Your task to perform on an android device: Open CNN.com Image 0: 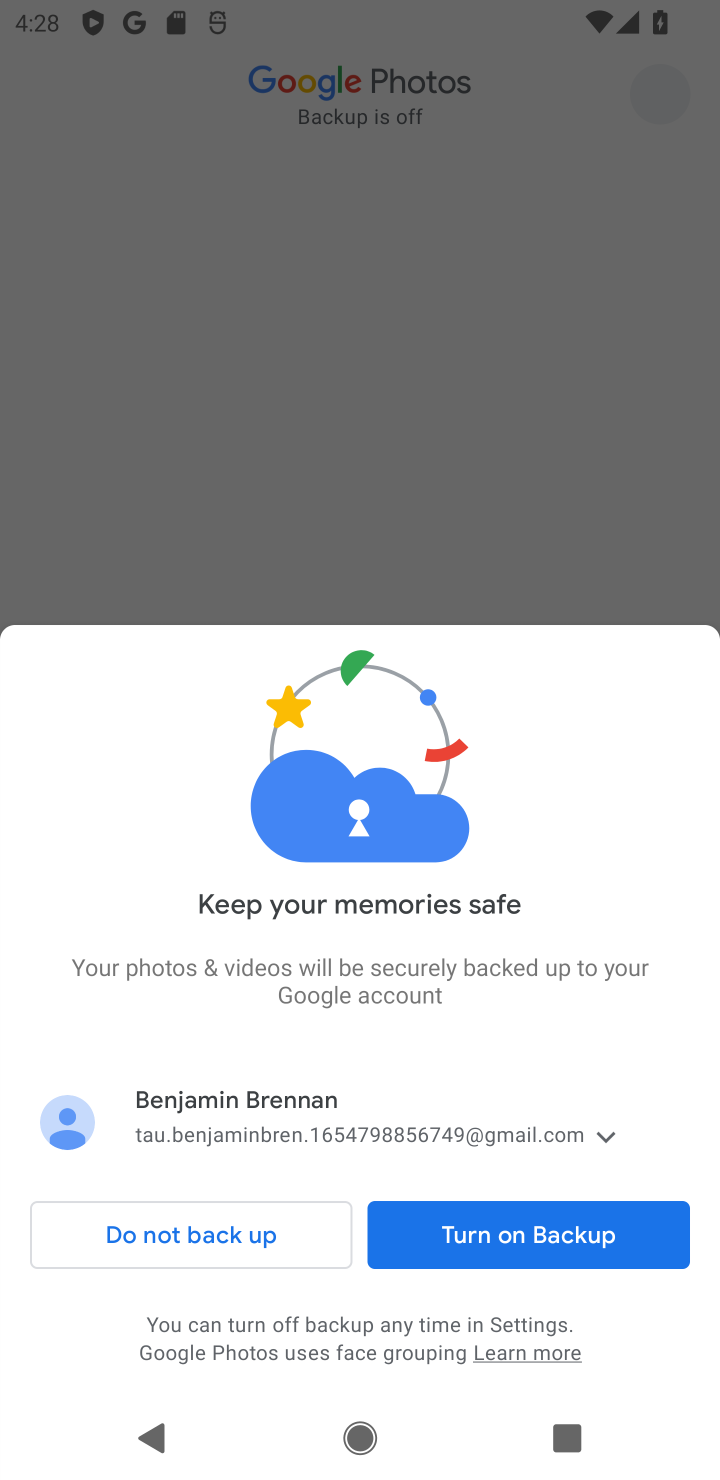
Step 0: press home button
Your task to perform on an android device: Open CNN.com Image 1: 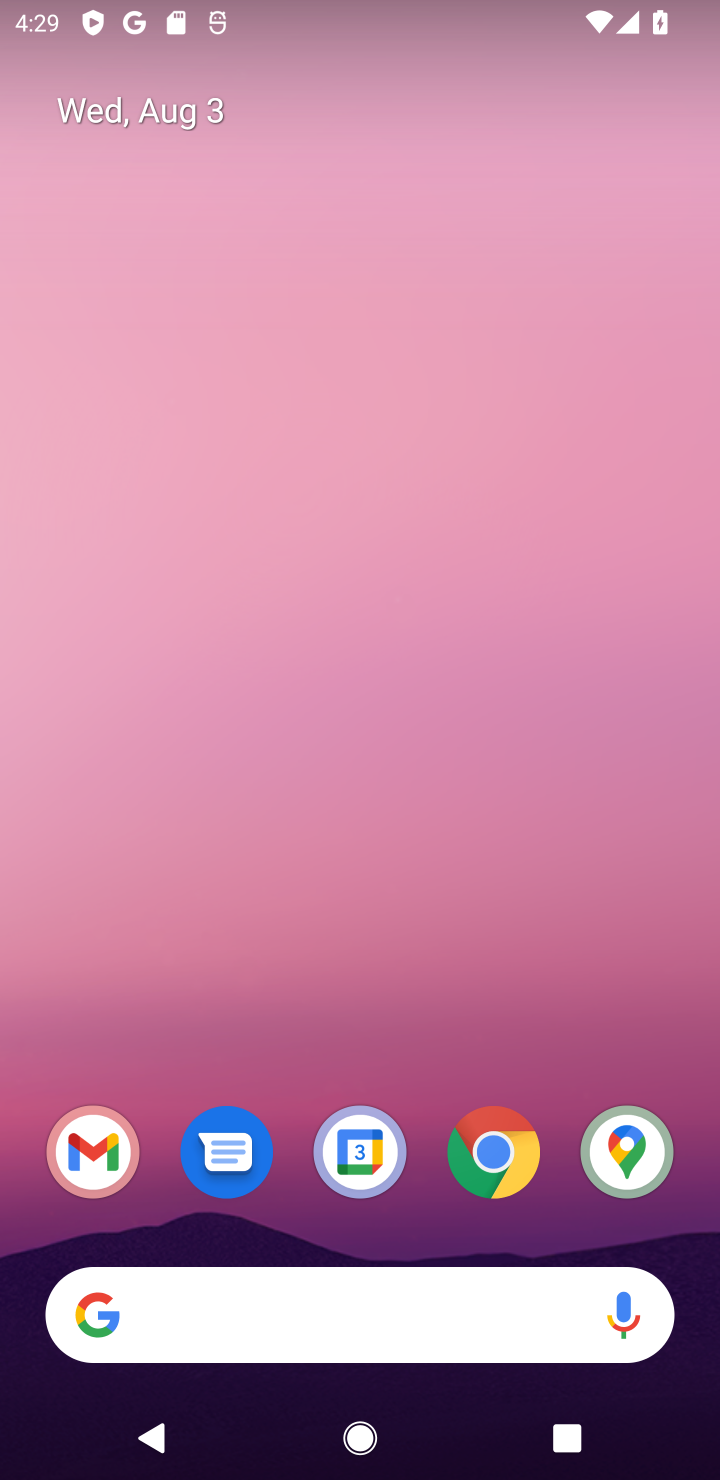
Step 1: click (472, 1148)
Your task to perform on an android device: Open CNN.com Image 2: 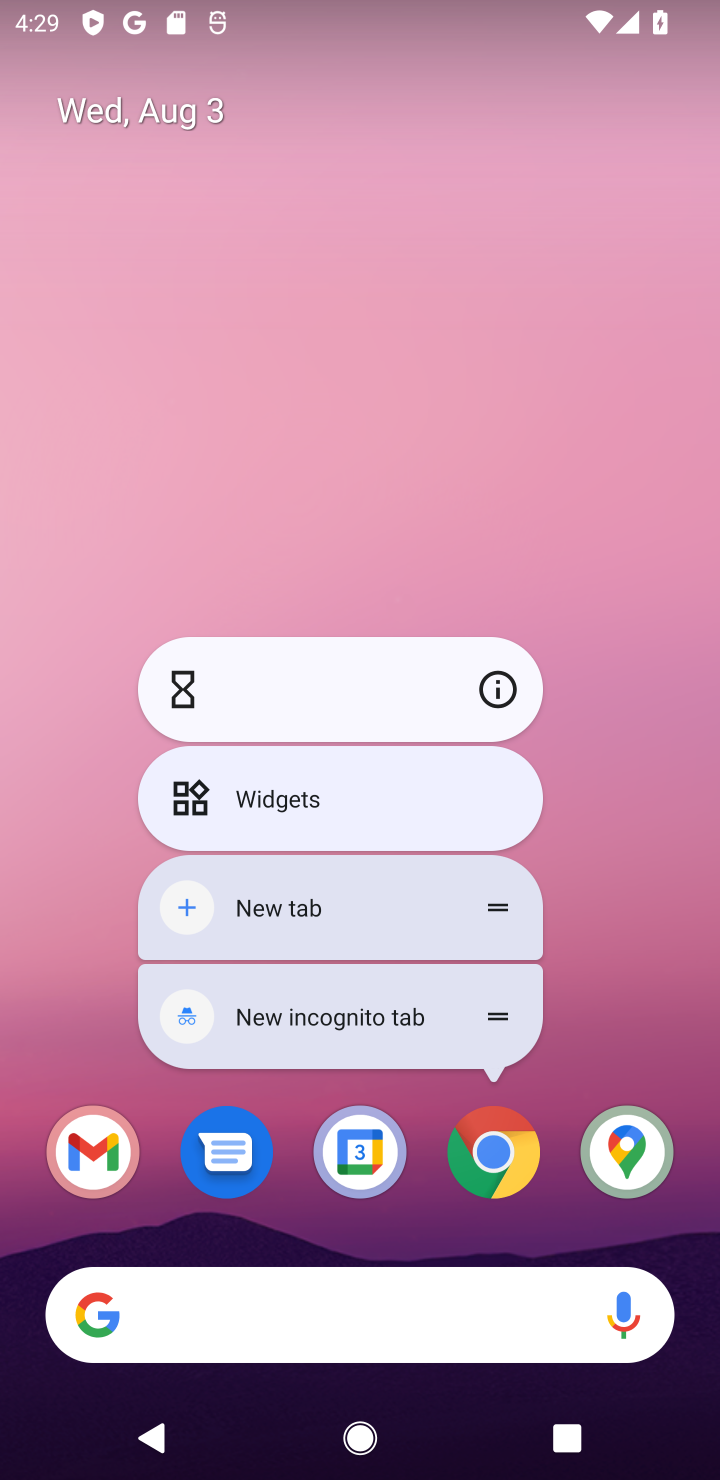
Step 2: click (472, 1148)
Your task to perform on an android device: Open CNN.com Image 3: 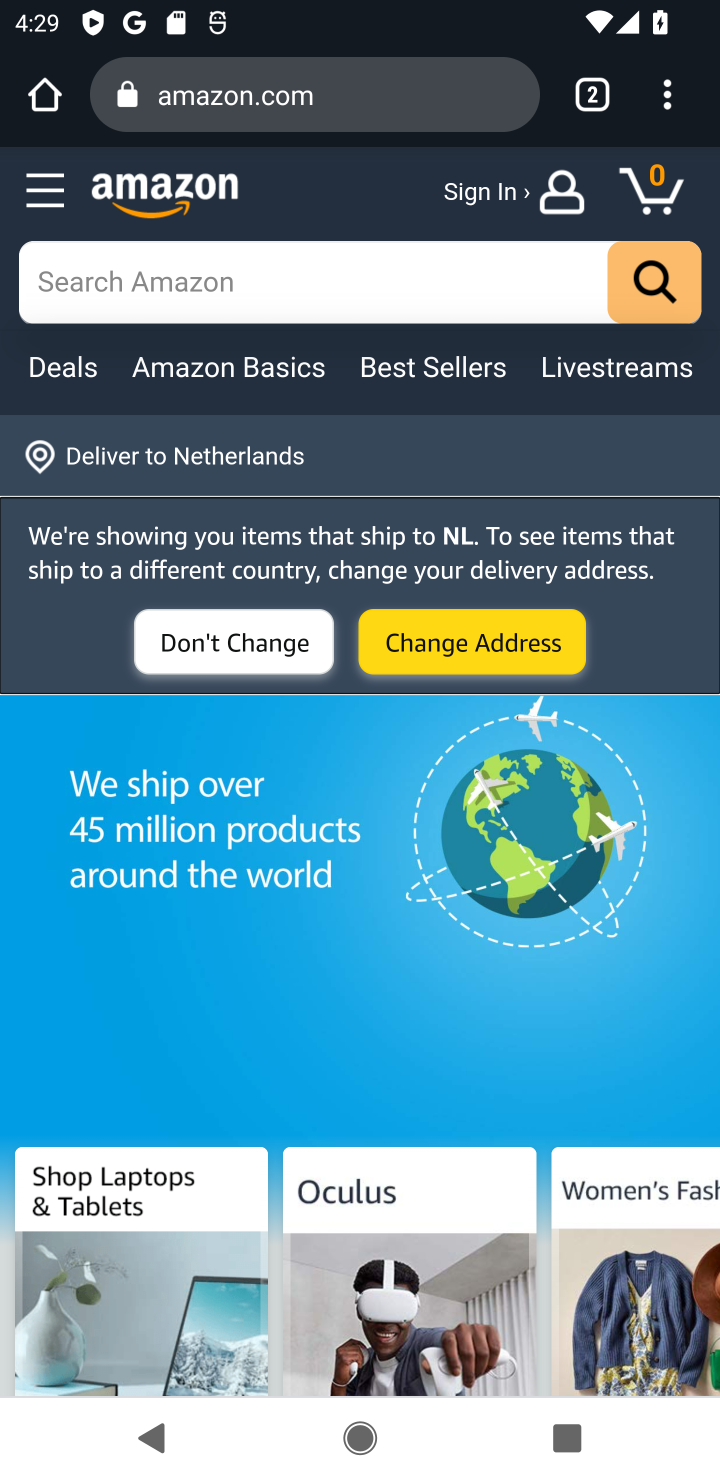
Step 3: click (340, 77)
Your task to perform on an android device: Open CNN.com Image 4: 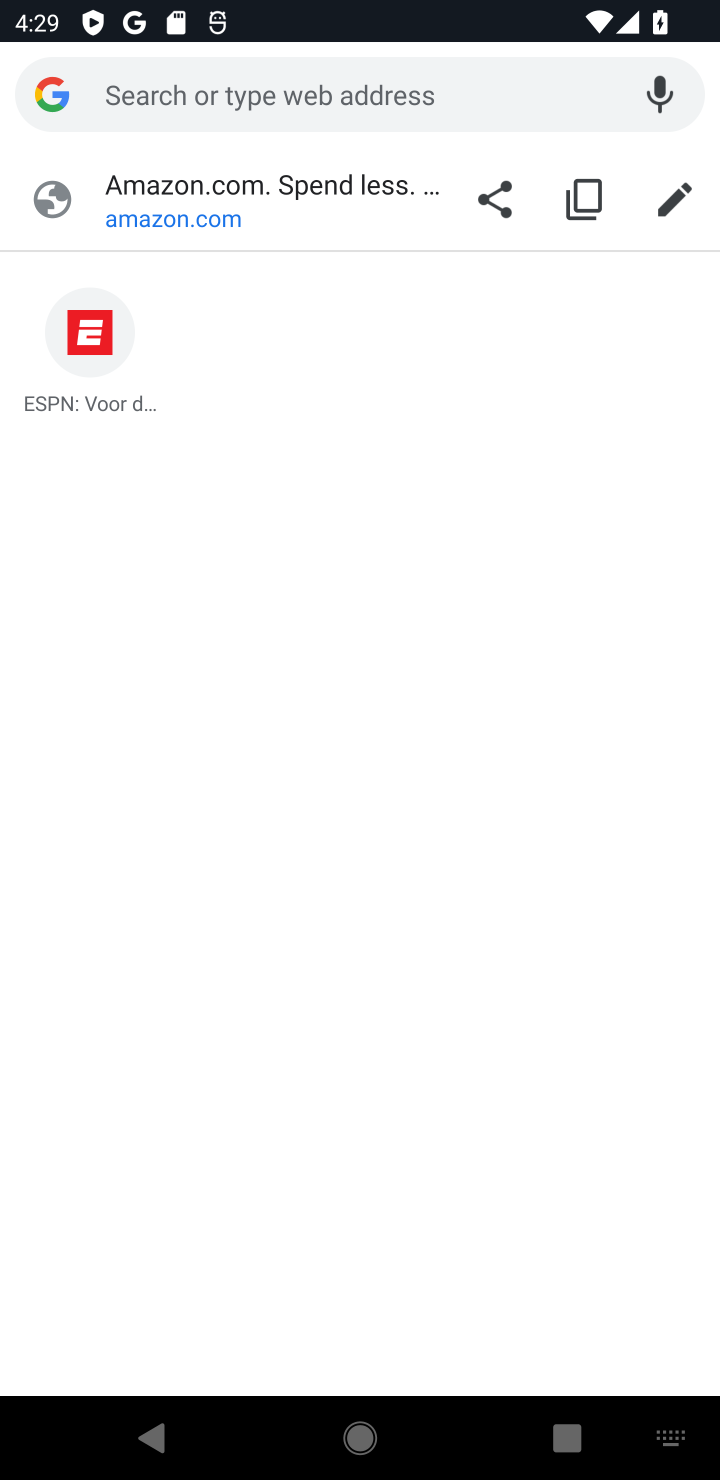
Step 4: type "cnn.com"
Your task to perform on an android device: Open CNN.com Image 5: 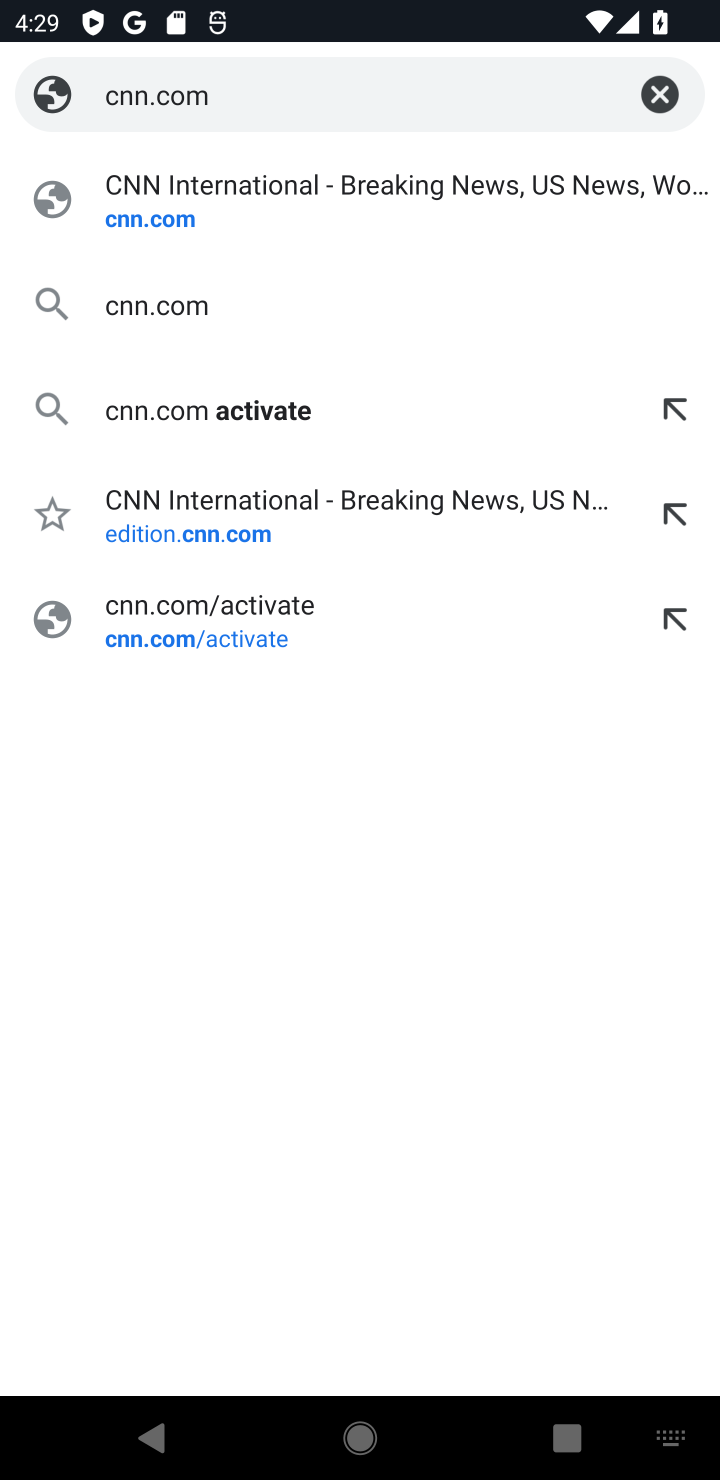
Step 5: click (301, 216)
Your task to perform on an android device: Open CNN.com Image 6: 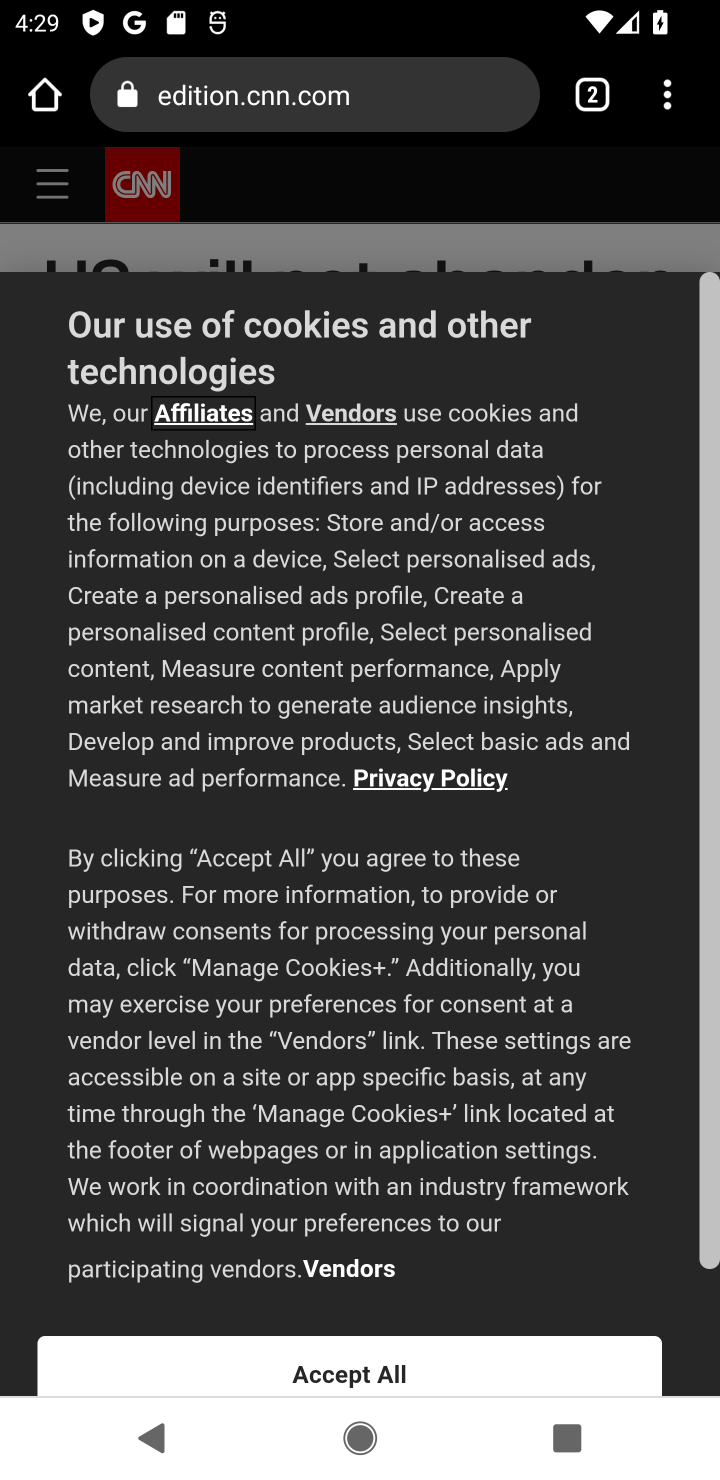
Step 6: task complete